Your task to perform on an android device: Open Reddit.com Image 0: 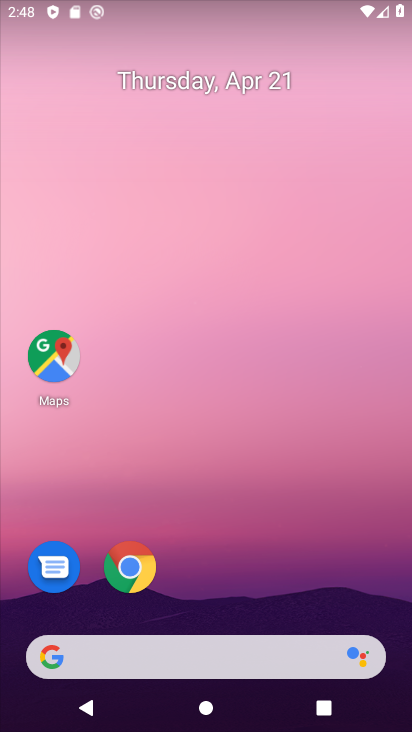
Step 0: click (190, 671)
Your task to perform on an android device: Open Reddit.com Image 1: 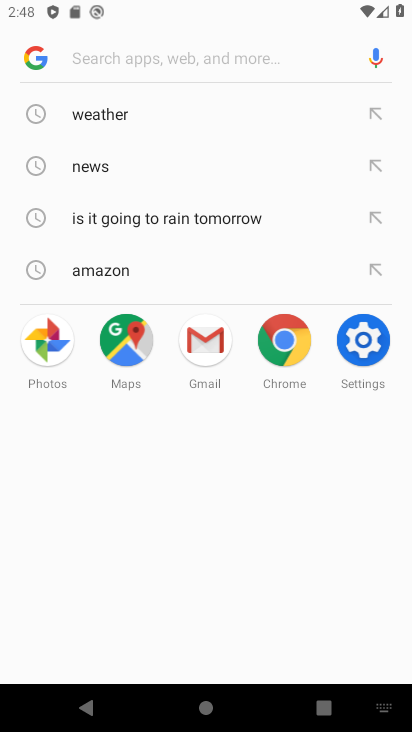
Step 1: type "reddit.com"
Your task to perform on an android device: Open Reddit.com Image 2: 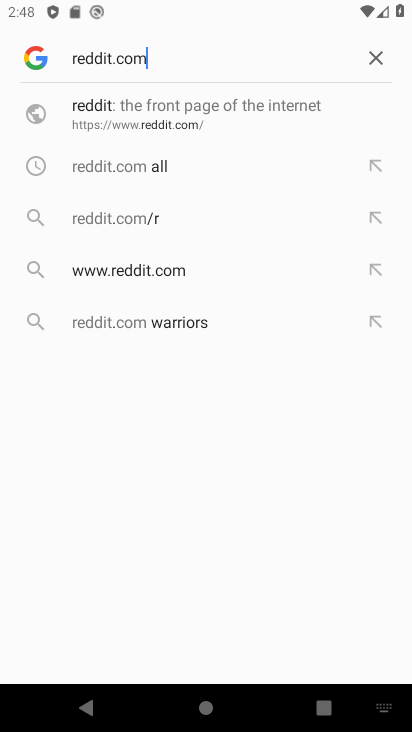
Step 2: click (152, 108)
Your task to perform on an android device: Open Reddit.com Image 3: 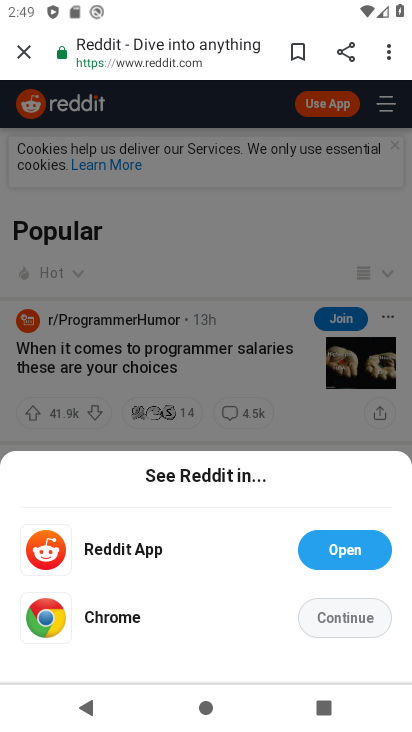
Step 3: task complete